Your task to perform on an android device: Search for the best rated soccer ball on AliExpress Image 0: 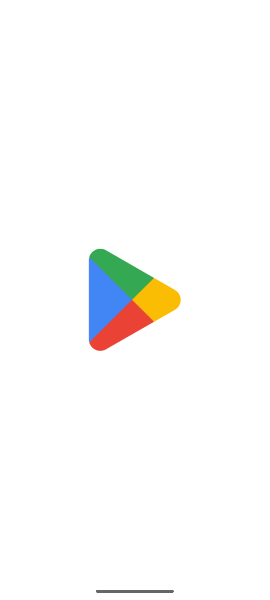
Step 0: press home button
Your task to perform on an android device: Search for the best rated soccer ball on AliExpress Image 1: 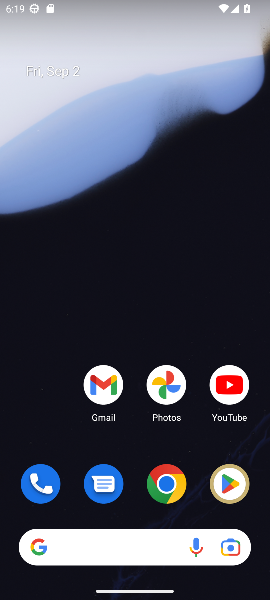
Step 1: click (175, 485)
Your task to perform on an android device: Search for the best rated soccer ball on AliExpress Image 2: 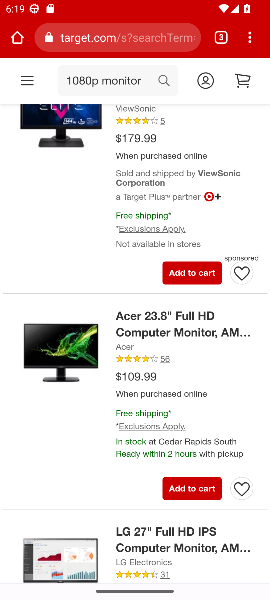
Step 2: click (162, 71)
Your task to perform on an android device: Search for the best rated soccer ball on AliExpress Image 3: 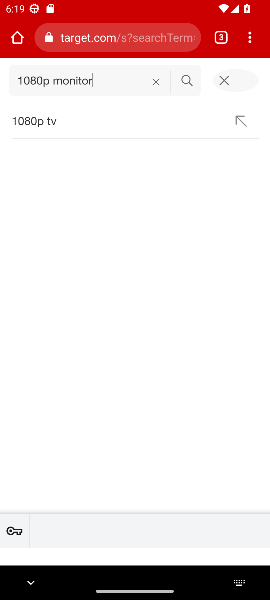
Step 3: click (134, 38)
Your task to perform on an android device: Search for the best rated soccer ball on AliExpress Image 4: 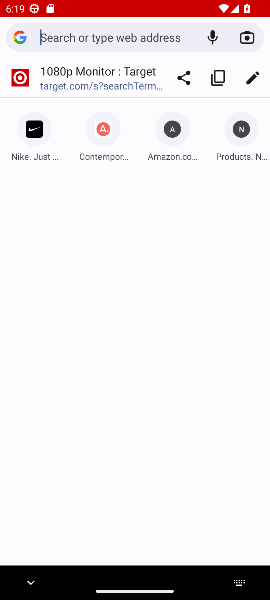
Step 4: type "AliExpress"
Your task to perform on an android device: Search for the best rated soccer ball on AliExpress Image 5: 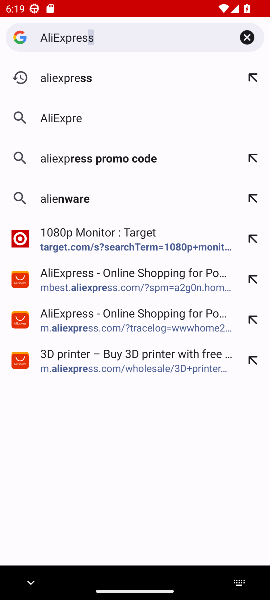
Step 5: press enter
Your task to perform on an android device: Search for the best rated soccer ball on AliExpress Image 6: 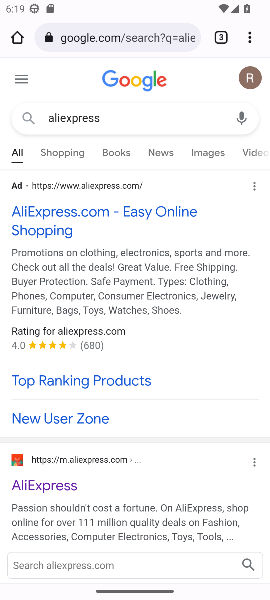
Step 6: click (66, 476)
Your task to perform on an android device: Search for the best rated soccer ball on AliExpress Image 7: 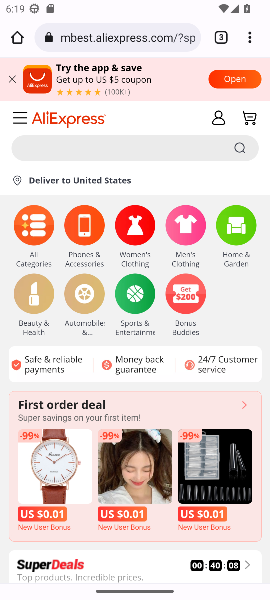
Step 7: click (164, 143)
Your task to perform on an android device: Search for the best rated soccer ball on AliExpress Image 8: 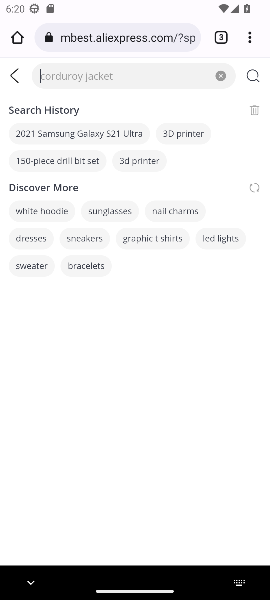
Step 8: type "soccer ball "
Your task to perform on an android device: Search for the best rated soccer ball on AliExpress Image 9: 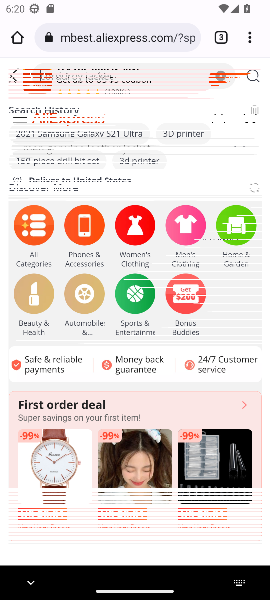
Step 9: press enter
Your task to perform on an android device: Search for the best rated soccer ball on AliExpress Image 10: 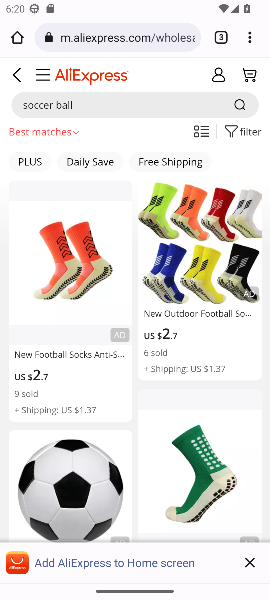
Step 10: drag from (161, 426) to (204, 284)
Your task to perform on an android device: Search for the best rated soccer ball on AliExpress Image 11: 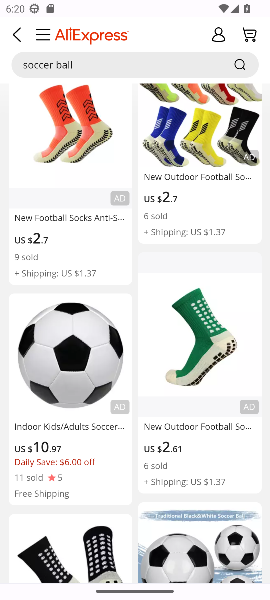
Step 11: drag from (146, 482) to (175, 214)
Your task to perform on an android device: Search for the best rated soccer ball on AliExpress Image 12: 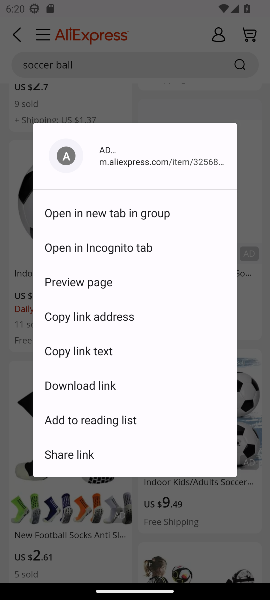
Step 12: click (255, 312)
Your task to perform on an android device: Search for the best rated soccer ball on AliExpress Image 13: 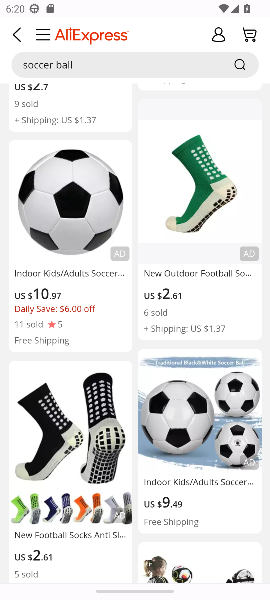
Step 13: task complete